Your task to perform on an android device: Open the map Image 0: 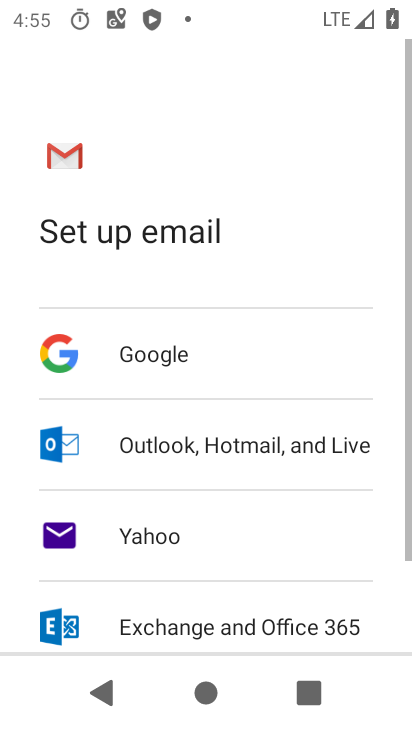
Step 0: press home button
Your task to perform on an android device: Open the map Image 1: 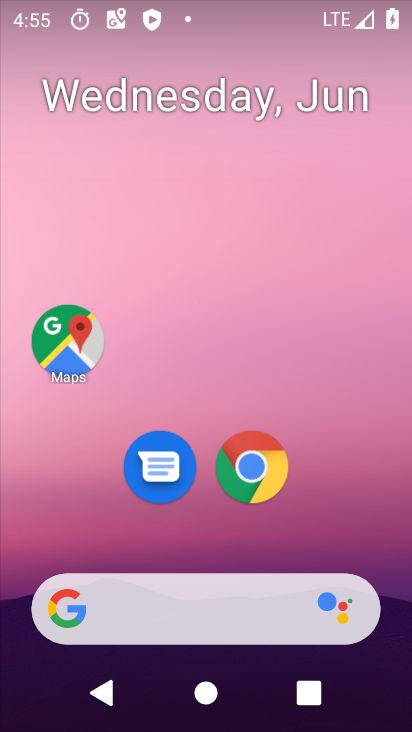
Step 1: click (57, 330)
Your task to perform on an android device: Open the map Image 2: 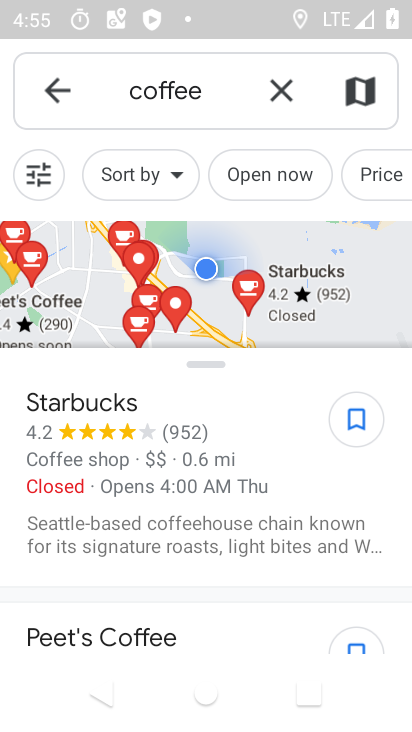
Step 2: task complete